Your task to perform on an android device: toggle pop-ups in chrome Image 0: 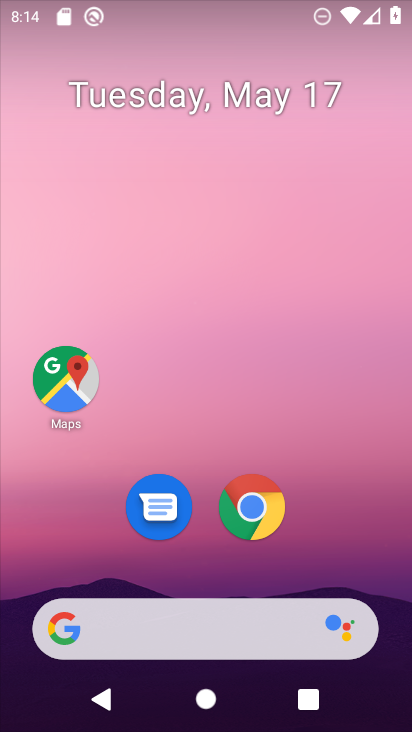
Step 0: click (265, 521)
Your task to perform on an android device: toggle pop-ups in chrome Image 1: 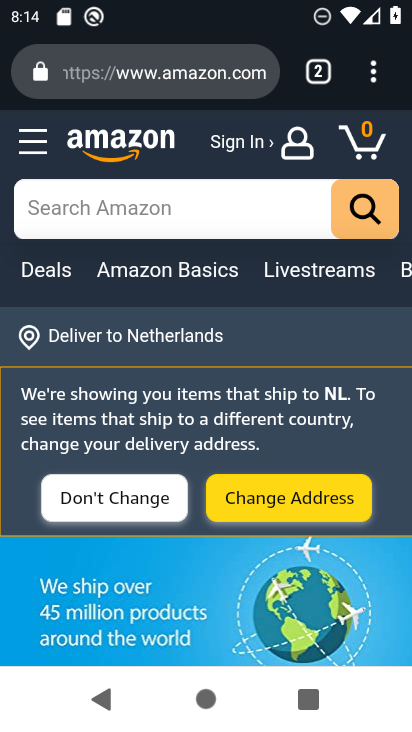
Step 1: click (376, 79)
Your task to perform on an android device: toggle pop-ups in chrome Image 2: 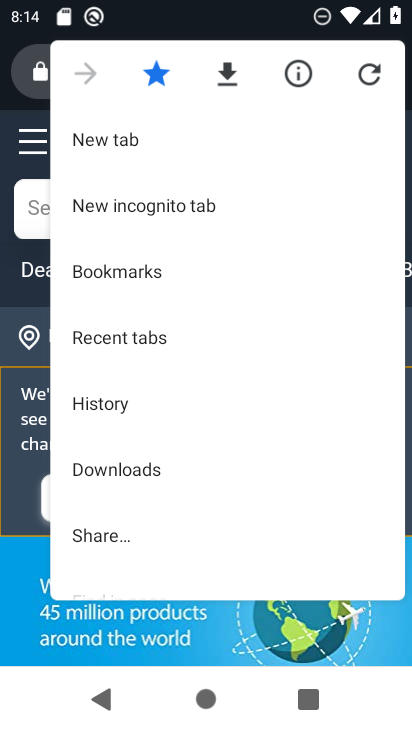
Step 2: drag from (232, 495) to (200, 115)
Your task to perform on an android device: toggle pop-ups in chrome Image 3: 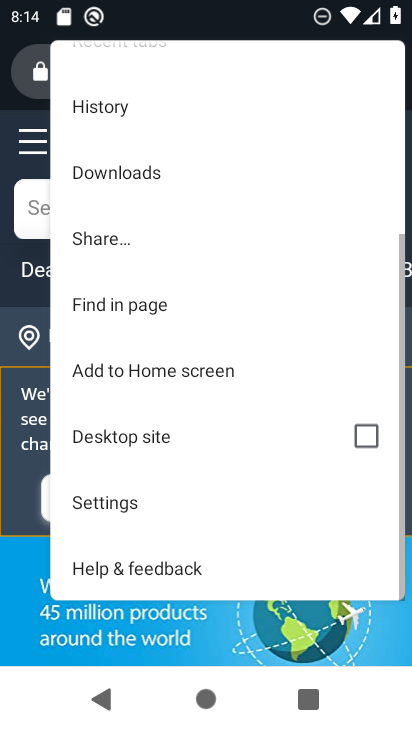
Step 3: click (109, 512)
Your task to perform on an android device: toggle pop-ups in chrome Image 4: 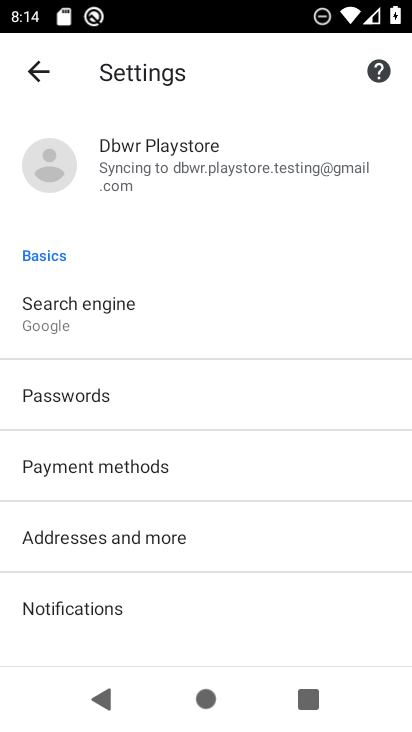
Step 4: drag from (189, 545) to (190, 125)
Your task to perform on an android device: toggle pop-ups in chrome Image 5: 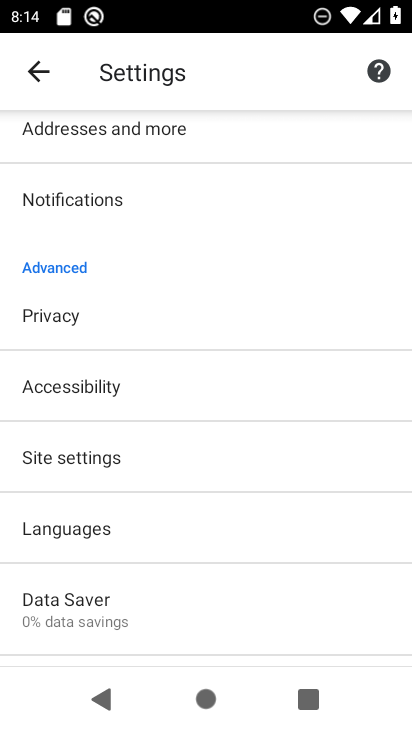
Step 5: click (59, 457)
Your task to perform on an android device: toggle pop-ups in chrome Image 6: 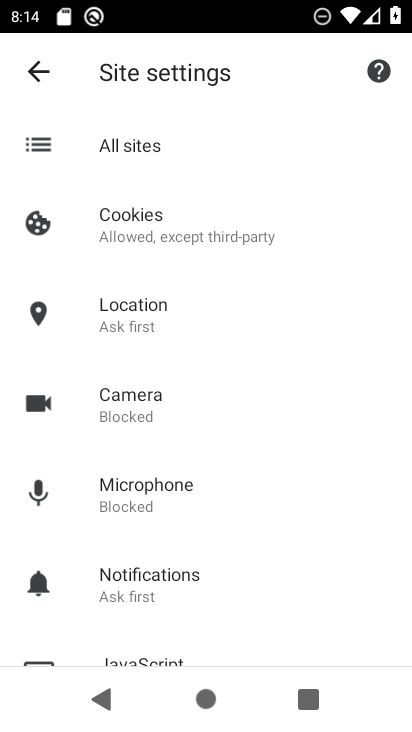
Step 6: drag from (130, 565) to (118, 201)
Your task to perform on an android device: toggle pop-ups in chrome Image 7: 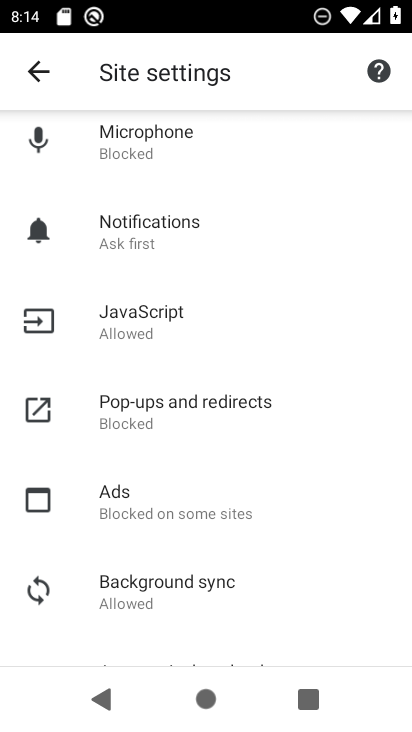
Step 7: click (137, 410)
Your task to perform on an android device: toggle pop-ups in chrome Image 8: 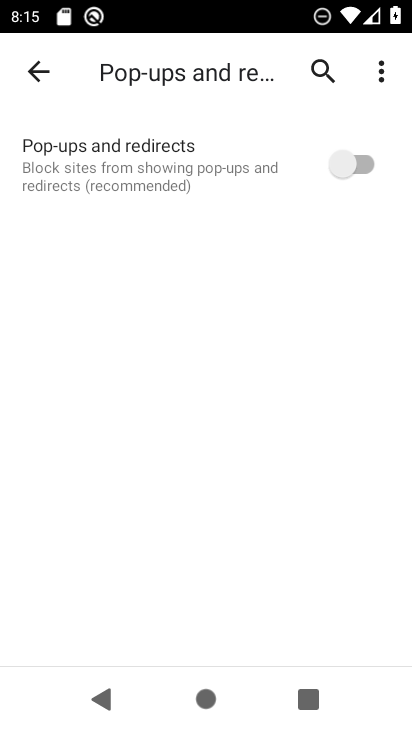
Step 8: click (345, 159)
Your task to perform on an android device: toggle pop-ups in chrome Image 9: 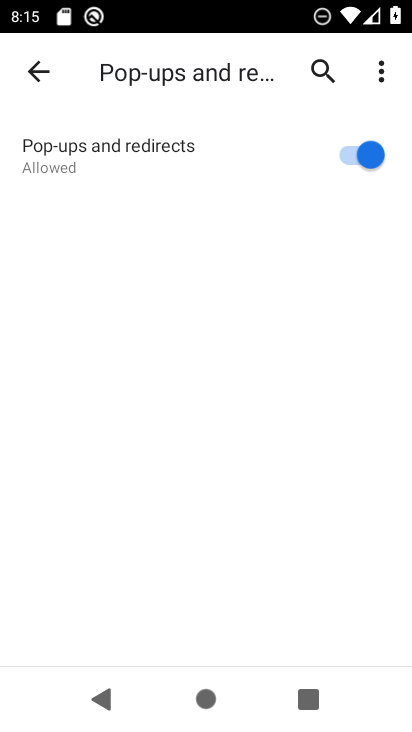
Step 9: task complete